Your task to perform on an android device: Open Google Maps and go to "Timeline" Image 0: 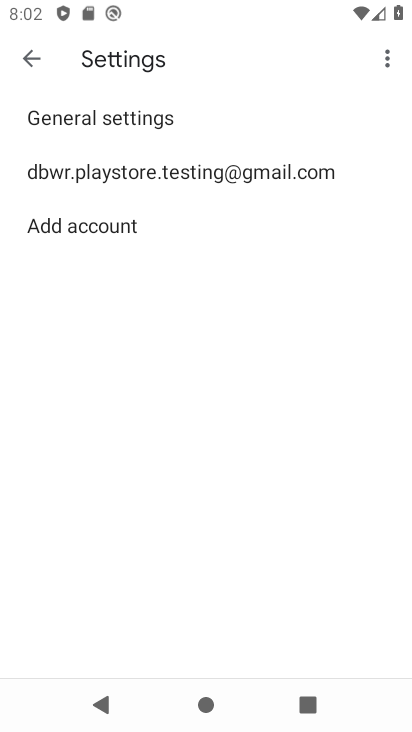
Step 0: press home button
Your task to perform on an android device: Open Google Maps and go to "Timeline" Image 1: 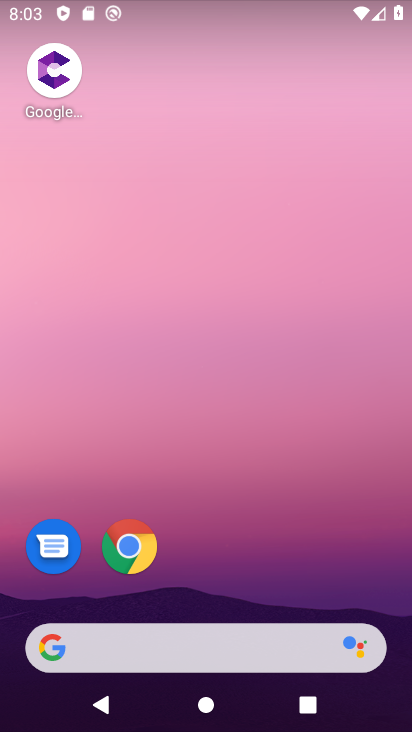
Step 1: drag from (339, 521) to (364, 84)
Your task to perform on an android device: Open Google Maps and go to "Timeline" Image 2: 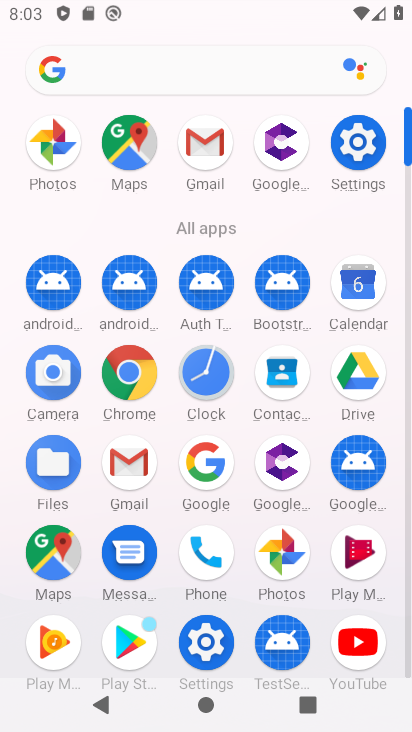
Step 2: click (141, 149)
Your task to perform on an android device: Open Google Maps and go to "Timeline" Image 3: 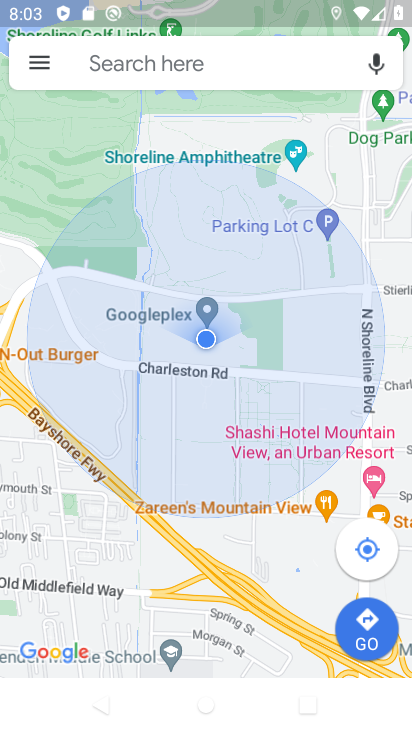
Step 3: click (37, 76)
Your task to perform on an android device: Open Google Maps and go to "Timeline" Image 4: 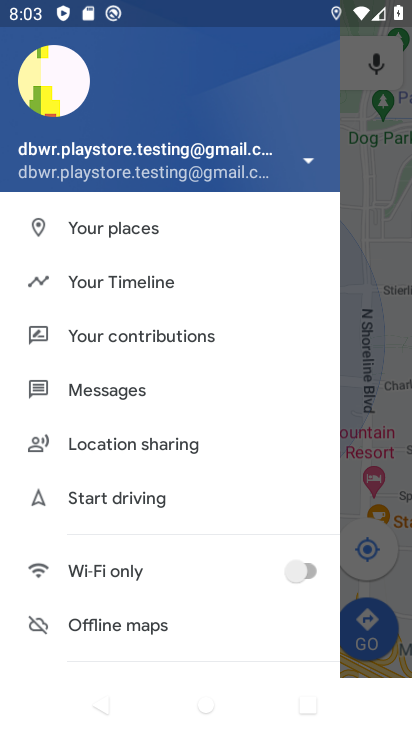
Step 4: click (106, 283)
Your task to perform on an android device: Open Google Maps and go to "Timeline" Image 5: 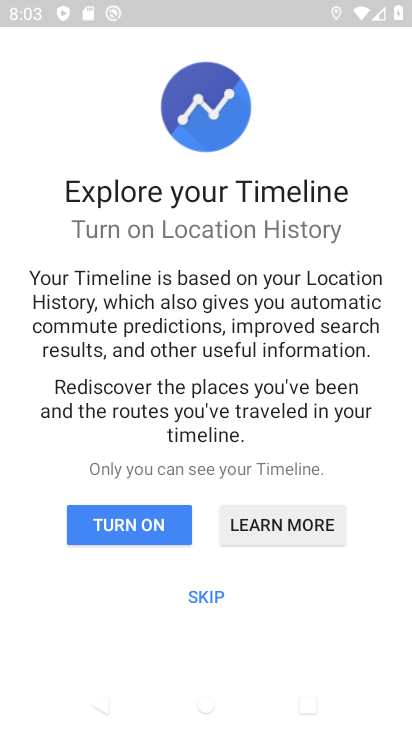
Step 5: task complete